Your task to perform on an android device: Open calendar and show me the first week of next month Image 0: 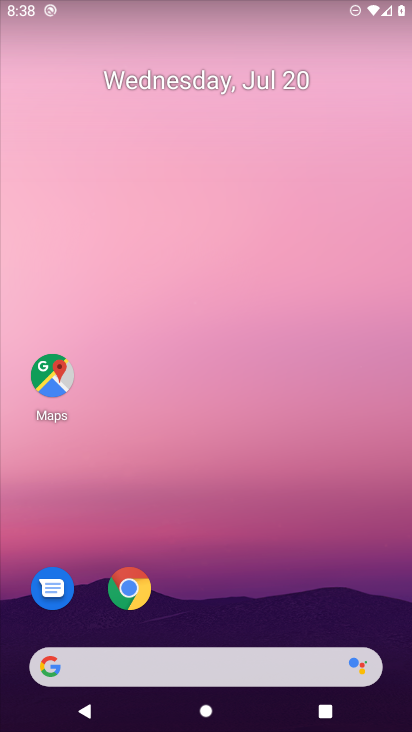
Step 0: drag from (31, 674) to (279, 237)
Your task to perform on an android device: Open calendar and show me the first week of next month Image 1: 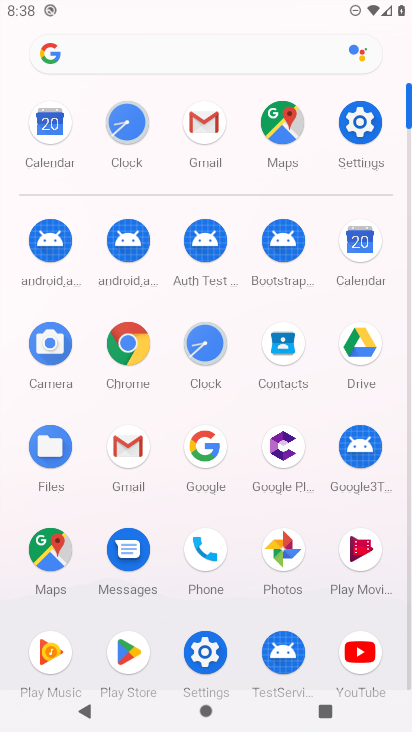
Step 1: click (367, 248)
Your task to perform on an android device: Open calendar and show me the first week of next month Image 2: 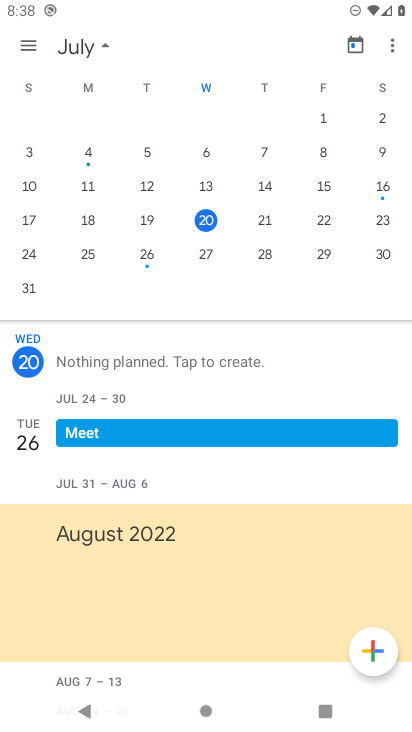
Step 2: task complete